Your task to perform on an android device: open app "TextNow: Call + Text Unlimited" (install if not already installed) Image 0: 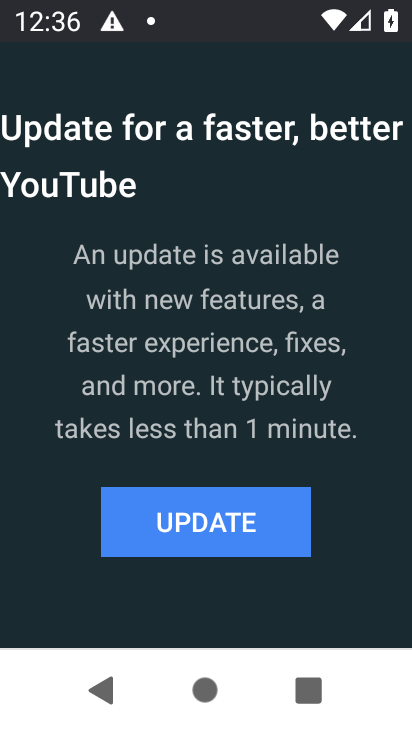
Step 0: press back button
Your task to perform on an android device: open app "TextNow: Call + Text Unlimited" (install if not already installed) Image 1: 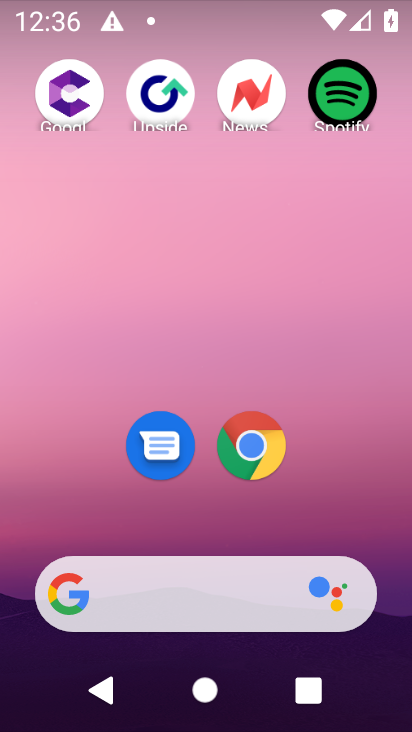
Step 1: drag from (345, 442) to (279, 109)
Your task to perform on an android device: open app "TextNow: Call + Text Unlimited" (install if not already installed) Image 2: 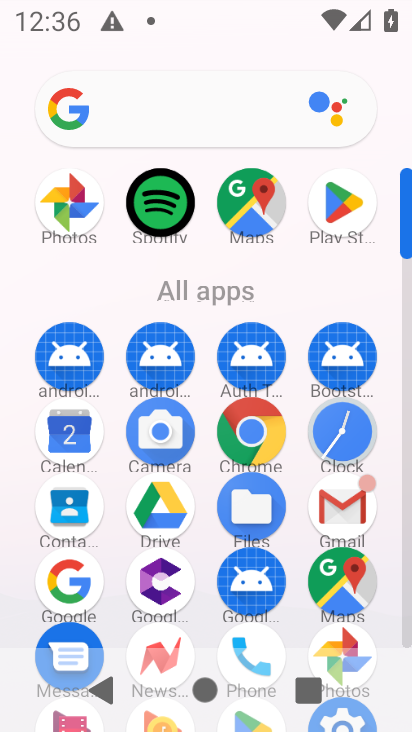
Step 2: click (336, 196)
Your task to perform on an android device: open app "TextNow: Call + Text Unlimited" (install if not already installed) Image 3: 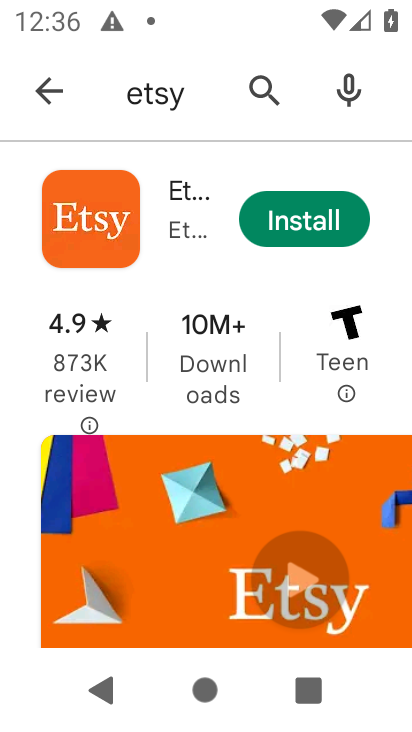
Step 3: click (256, 87)
Your task to perform on an android device: open app "TextNow: Call + Text Unlimited" (install if not already installed) Image 4: 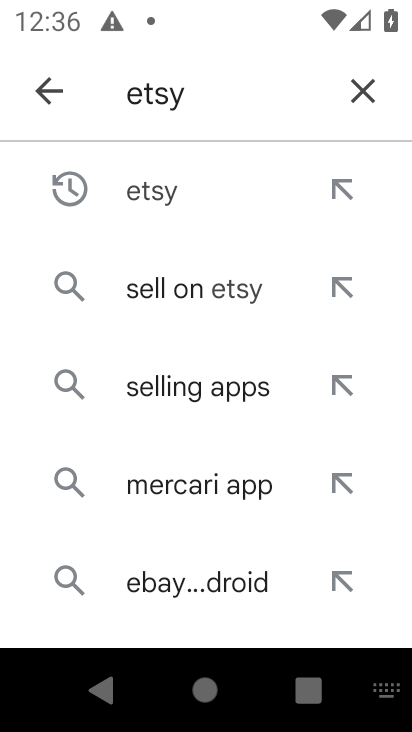
Step 4: click (355, 97)
Your task to perform on an android device: open app "TextNow: Call + Text Unlimited" (install if not already installed) Image 5: 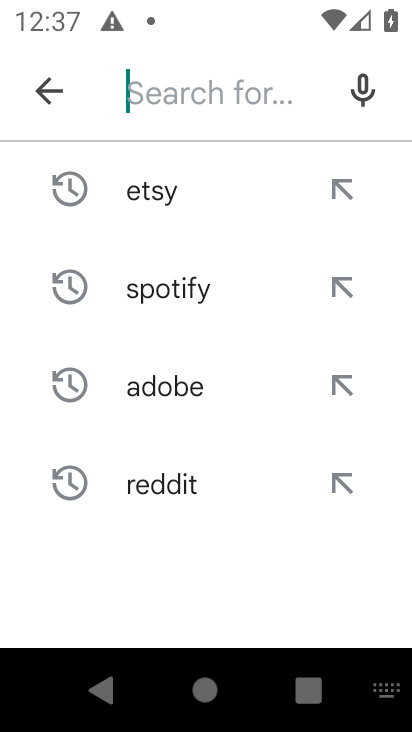
Step 5: type "textnow: call"
Your task to perform on an android device: open app "TextNow: Call + Text Unlimited" (install if not already installed) Image 6: 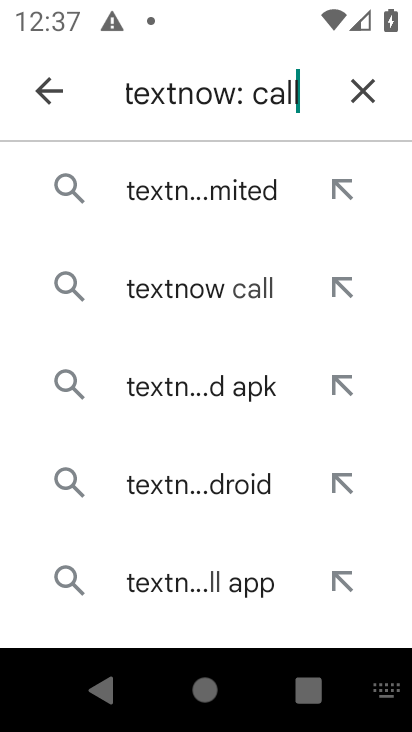
Step 6: click (195, 198)
Your task to perform on an android device: open app "TextNow: Call + Text Unlimited" (install if not already installed) Image 7: 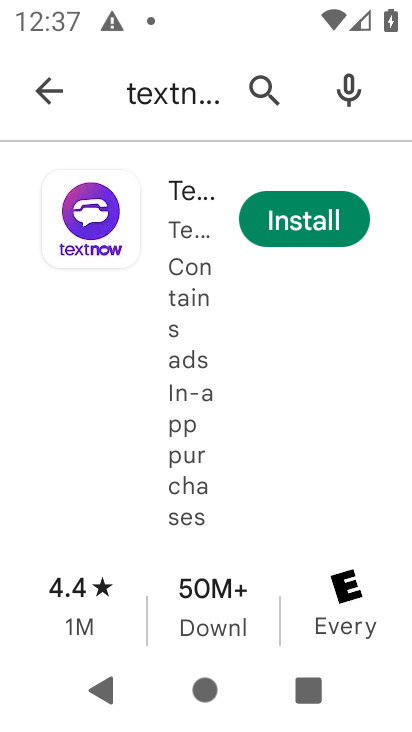
Step 7: click (196, 212)
Your task to perform on an android device: open app "TextNow: Call + Text Unlimited" (install if not already installed) Image 8: 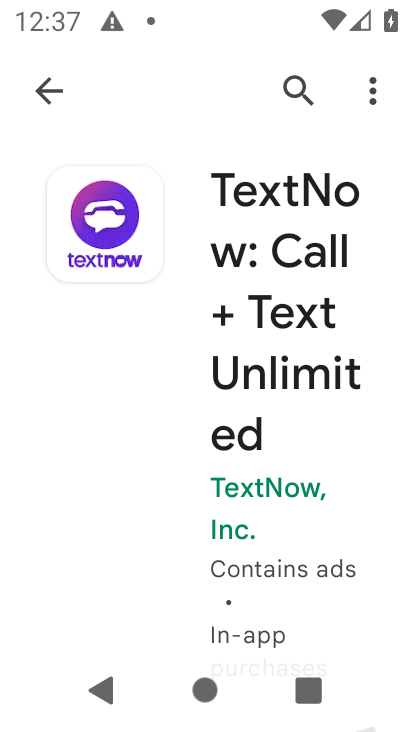
Step 8: drag from (378, 566) to (271, 246)
Your task to perform on an android device: open app "TextNow: Call + Text Unlimited" (install if not already installed) Image 9: 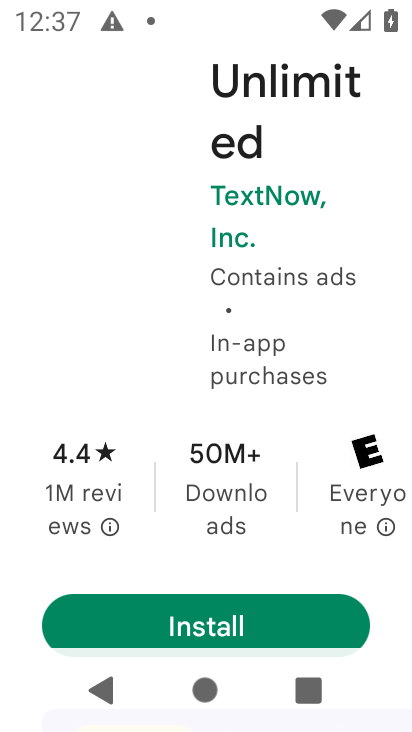
Step 9: click (314, 625)
Your task to perform on an android device: open app "TextNow: Call + Text Unlimited" (install if not already installed) Image 10: 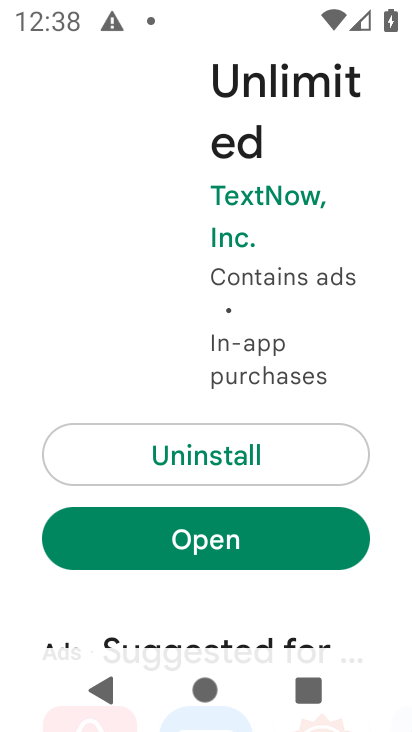
Step 10: click (272, 536)
Your task to perform on an android device: open app "TextNow: Call + Text Unlimited" (install if not already installed) Image 11: 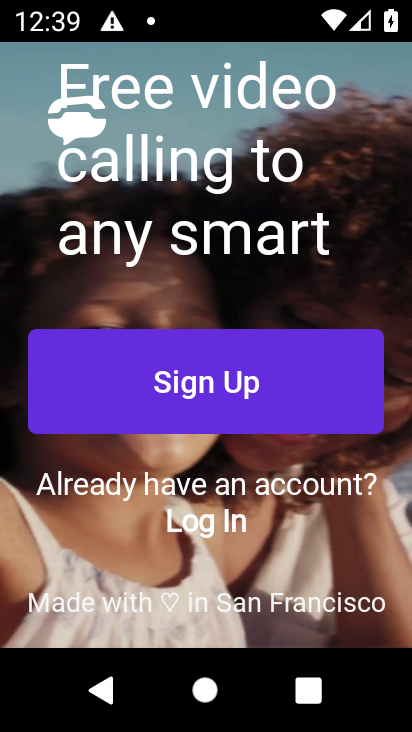
Step 11: task complete